Your task to perform on an android device: Open Yahoo.com Image 0: 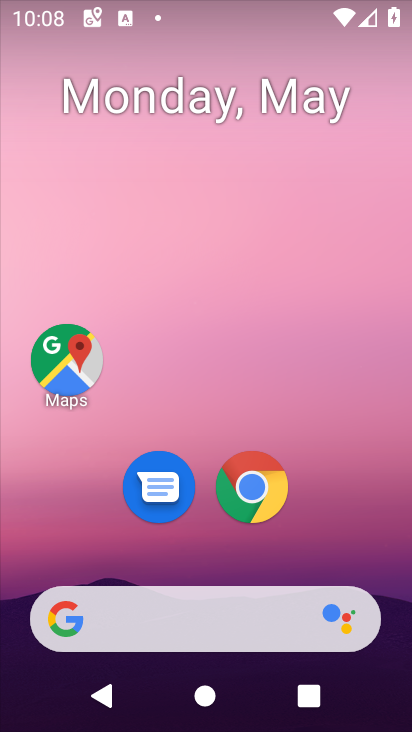
Step 0: click (257, 486)
Your task to perform on an android device: Open Yahoo.com Image 1: 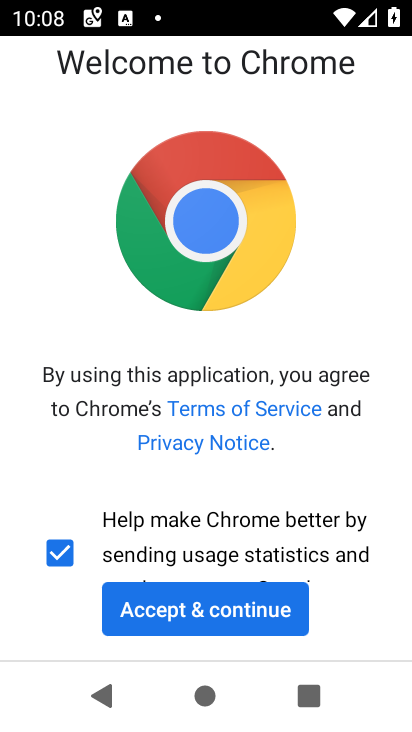
Step 1: click (199, 621)
Your task to perform on an android device: Open Yahoo.com Image 2: 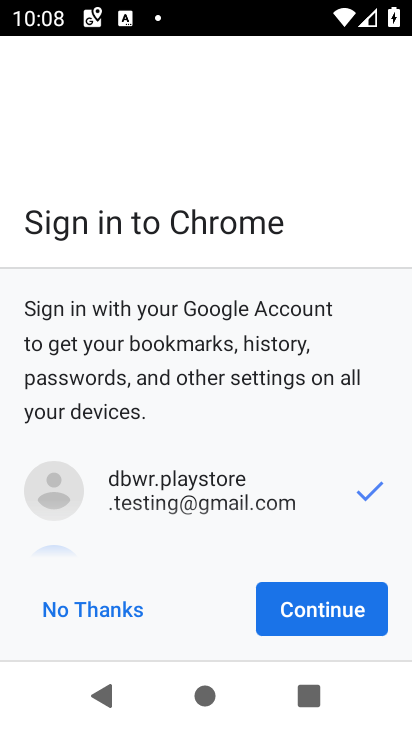
Step 2: click (302, 604)
Your task to perform on an android device: Open Yahoo.com Image 3: 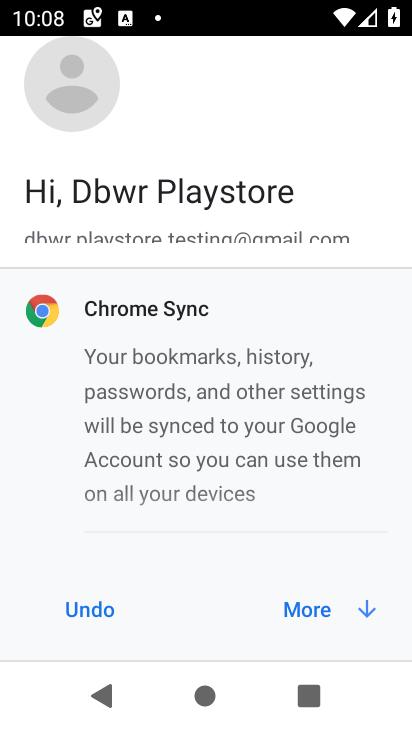
Step 3: click (302, 604)
Your task to perform on an android device: Open Yahoo.com Image 4: 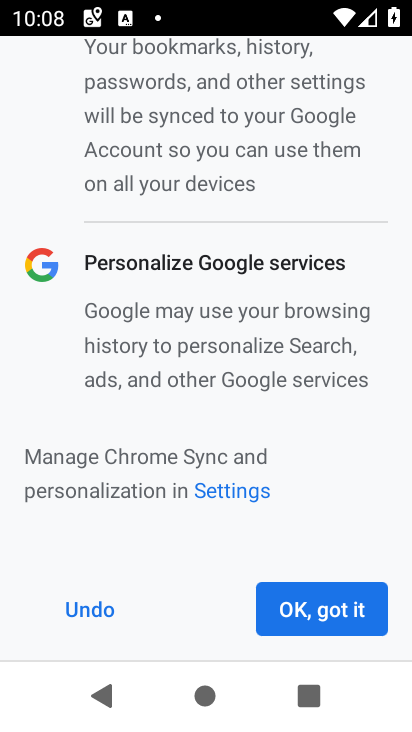
Step 4: click (302, 604)
Your task to perform on an android device: Open Yahoo.com Image 5: 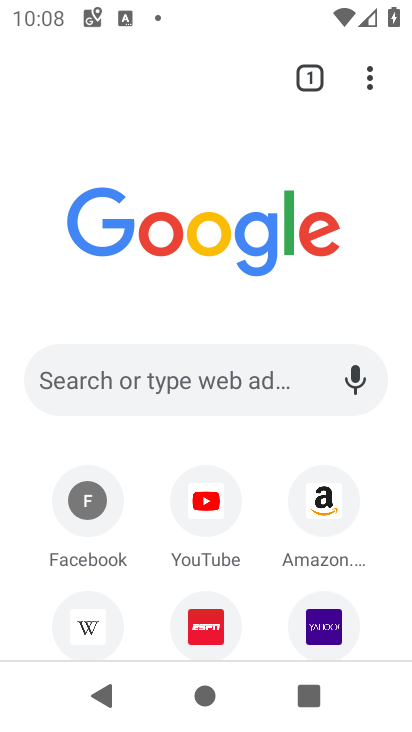
Step 5: click (315, 637)
Your task to perform on an android device: Open Yahoo.com Image 6: 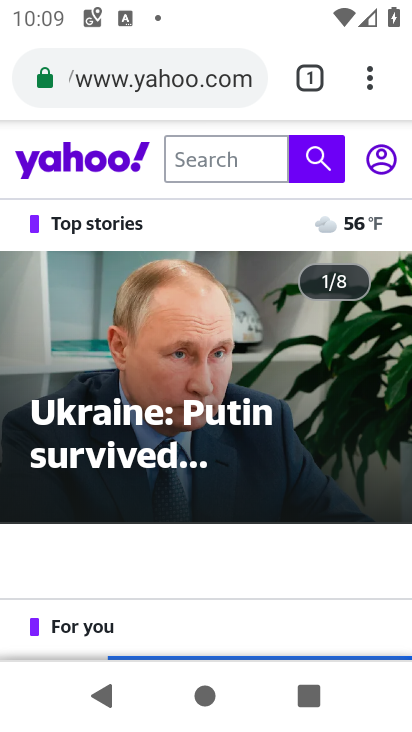
Step 6: task complete